Your task to perform on an android device: Open Yahoo.com Image 0: 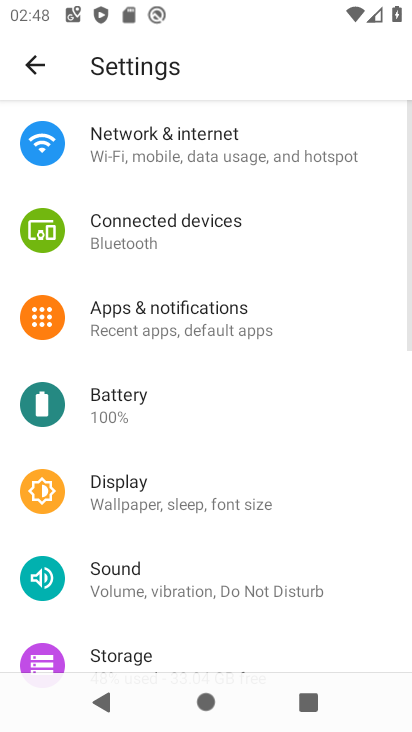
Step 0: press home button
Your task to perform on an android device: Open Yahoo.com Image 1: 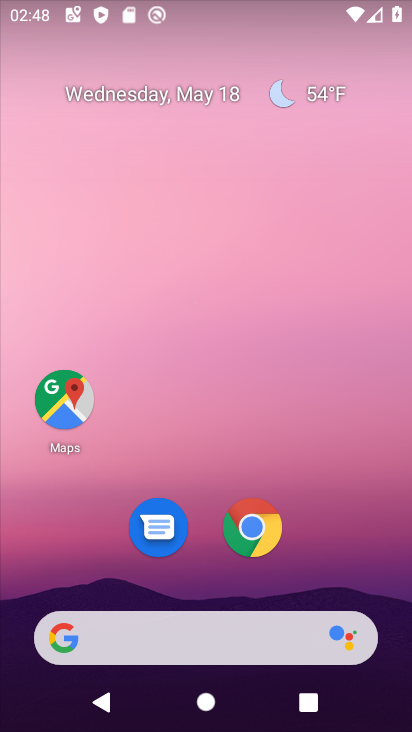
Step 1: click (248, 538)
Your task to perform on an android device: Open Yahoo.com Image 2: 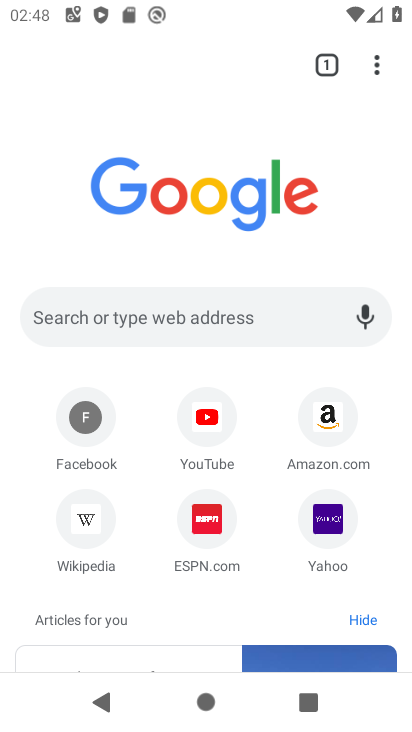
Step 2: click (285, 529)
Your task to perform on an android device: Open Yahoo.com Image 3: 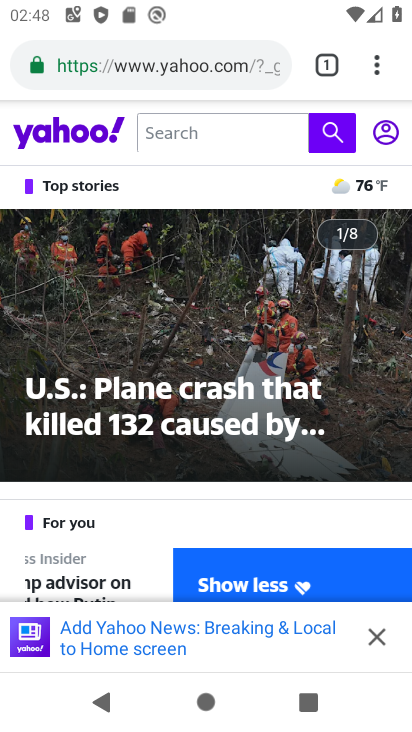
Step 3: task complete